Your task to perform on an android device: turn on airplane mode Image 0: 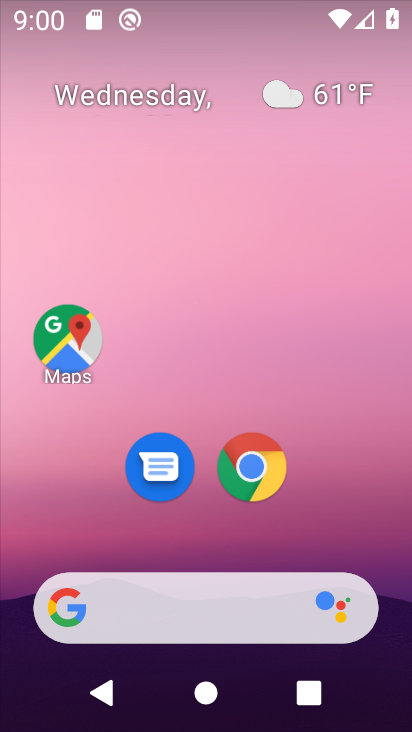
Step 0: drag from (368, 514) to (293, 118)
Your task to perform on an android device: turn on airplane mode Image 1: 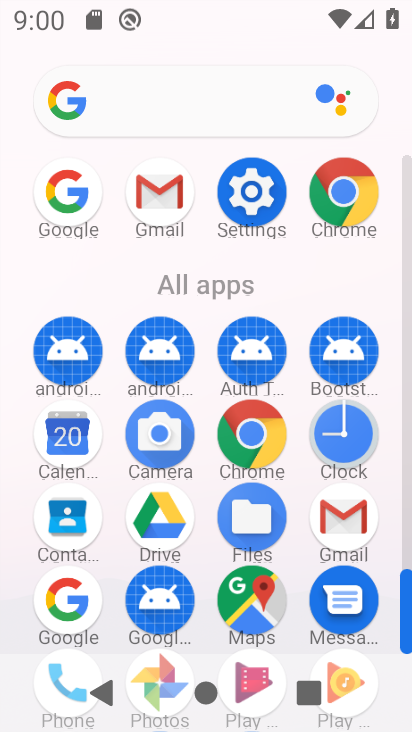
Step 1: click (252, 193)
Your task to perform on an android device: turn on airplane mode Image 2: 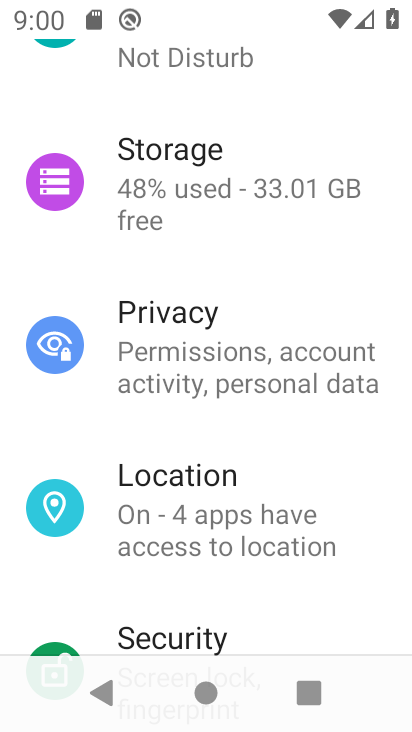
Step 2: drag from (297, 158) to (356, 482)
Your task to perform on an android device: turn on airplane mode Image 3: 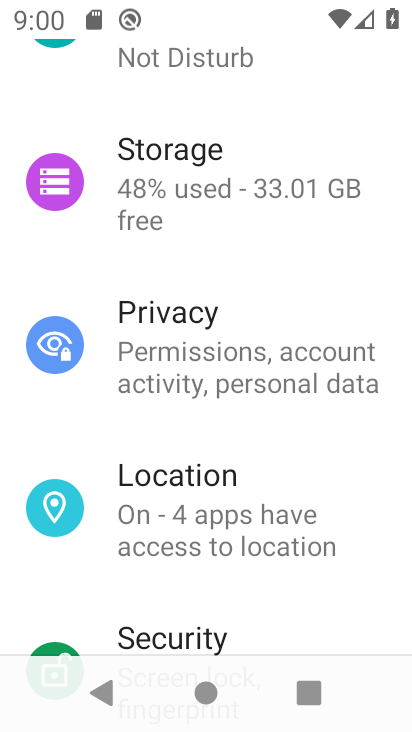
Step 3: drag from (278, 218) to (284, 577)
Your task to perform on an android device: turn on airplane mode Image 4: 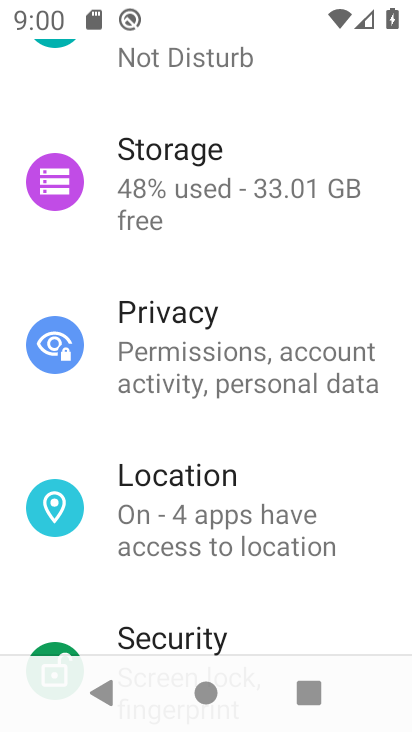
Step 4: drag from (307, 207) to (291, 509)
Your task to perform on an android device: turn on airplane mode Image 5: 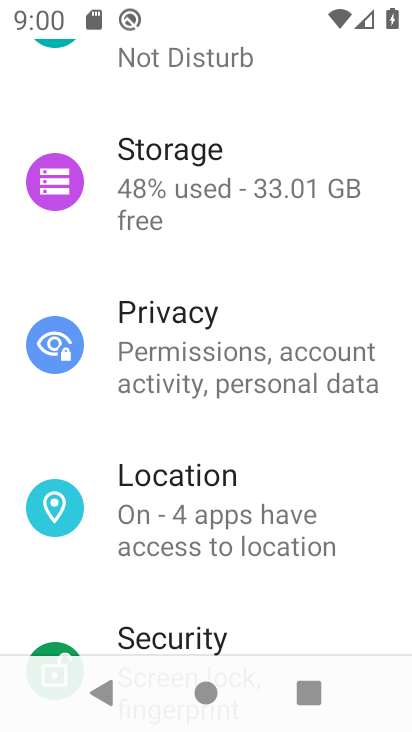
Step 5: drag from (254, 203) to (248, 541)
Your task to perform on an android device: turn on airplane mode Image 6: 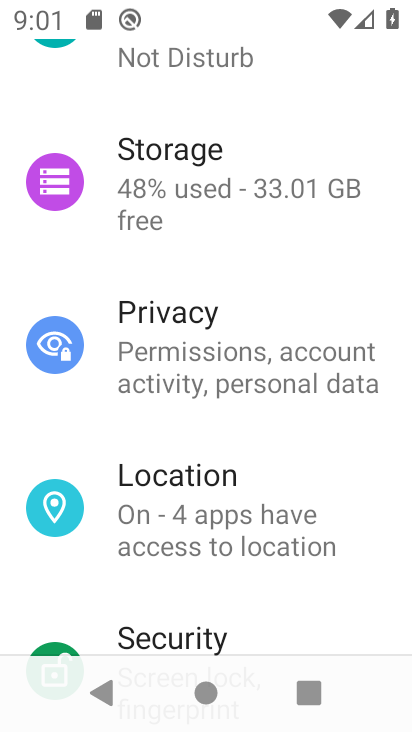
Step 6: drag from (244, 211) to (255, 523)
Your task to perform on an android device: turn on airplane mode Image 7: 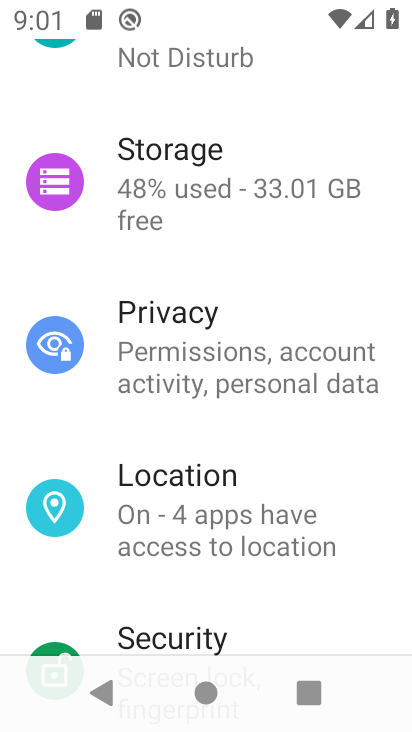
Step 7: drag from (248, 196) to (266, 642)
Your task to perform on an android device: turn on airplane mode Image 8: 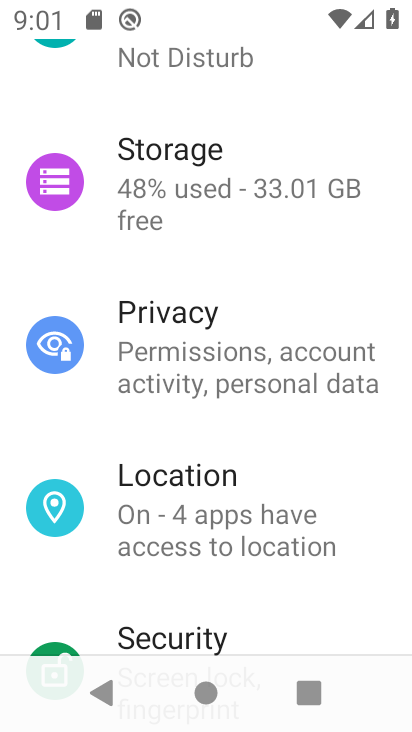
Step 8: drag from (257, 254) to (254, 599)
Your task to perform on an android device: turn on airplane mode Image 9: 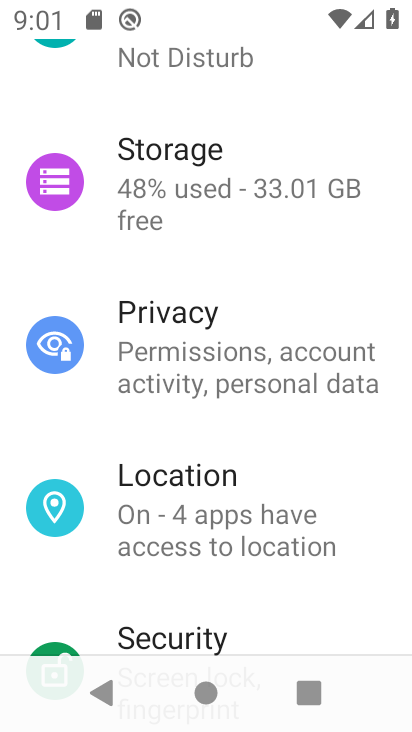
Step 9: drag from (262, 260) to (213, 544)
Your task to perform on an android device: turn on airplane mode Image 10: 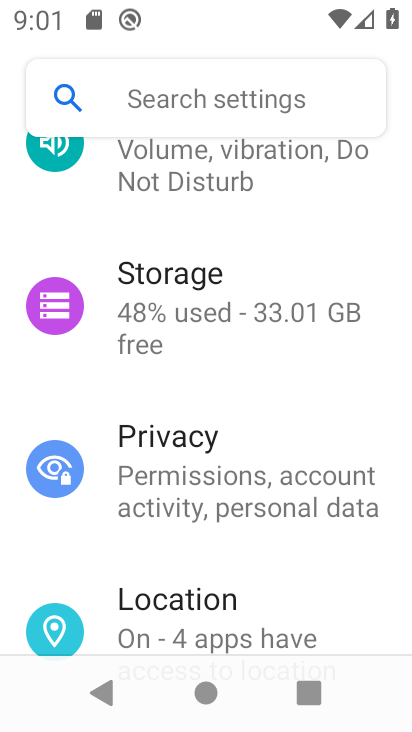
Step 10: drag from (251, 263) to (249, 584)
Your task to perform on an android device: turn on airplane mode Image 11: 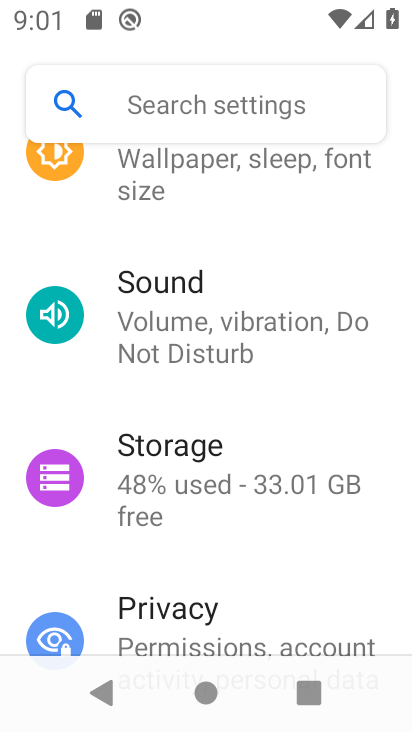
Step 11: drag from (262, 264) to (240, 622)
Your task to perform on an android device: turn on airplane mode Image 12: 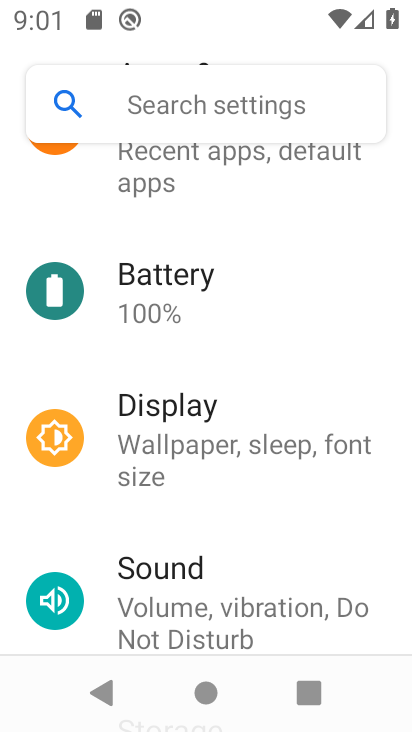
Step 12: drag from (249, 352) to (221, 613)
Your task to perform on an android device: turn on airplane mode Image 13: 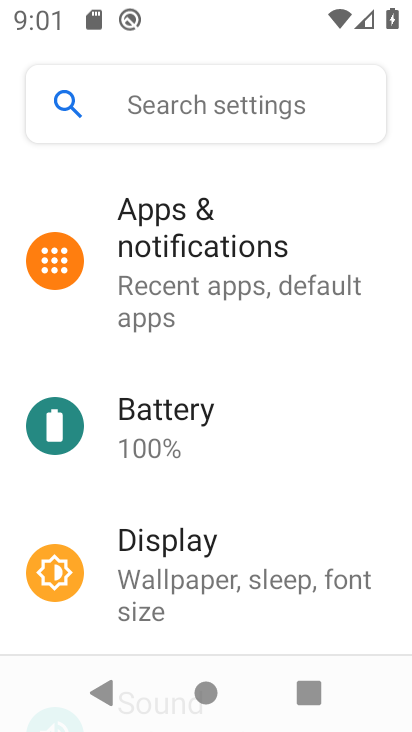
Step 13: drag from (256, 286) to (218, 621)
Your task to perform on an android device: turn on airplane mode Image 14: 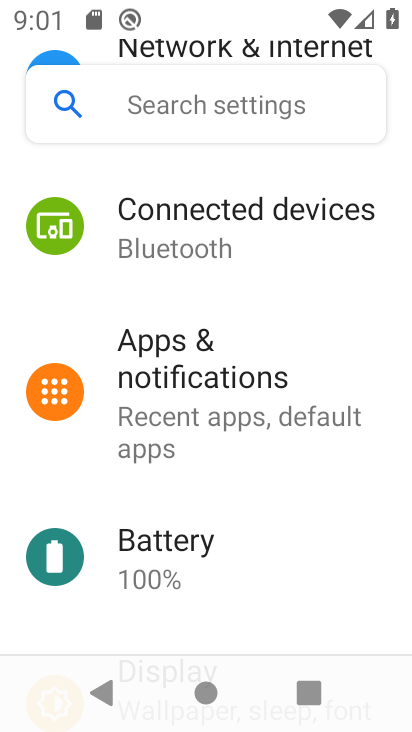
Step 14: drag from (285, 357) to (246, 626)
Your task to perform on an android device: turn on airplane mode Image 15: 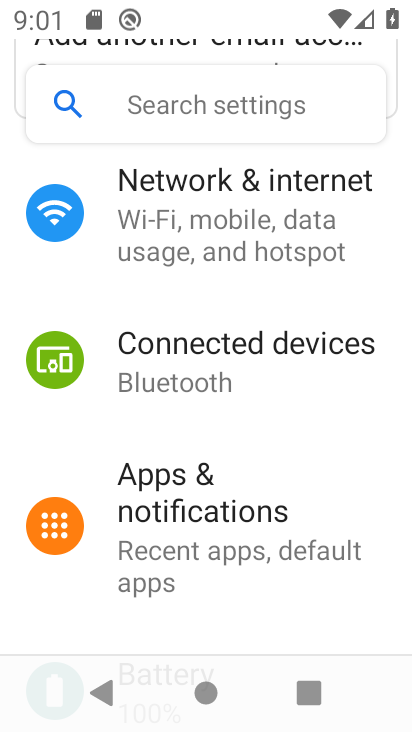
Step 15: drag from (232, 235) to (182, 611)
Your task to perform on an android device: turn on airplane mode Image 16: 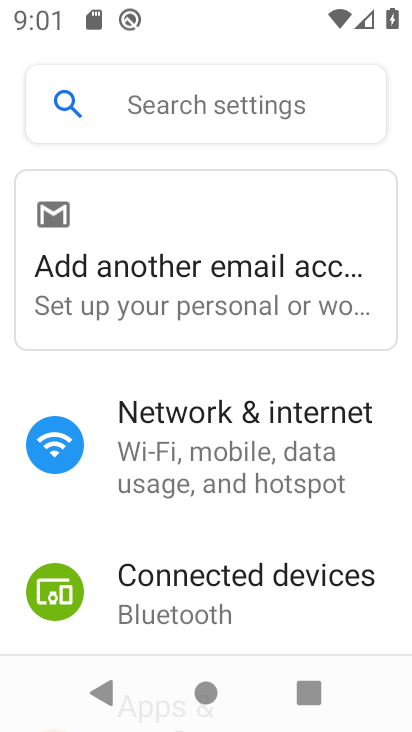
Step 16: click (189, 418)
Your task to perform on an android device: turn on airplane mode Image 17: 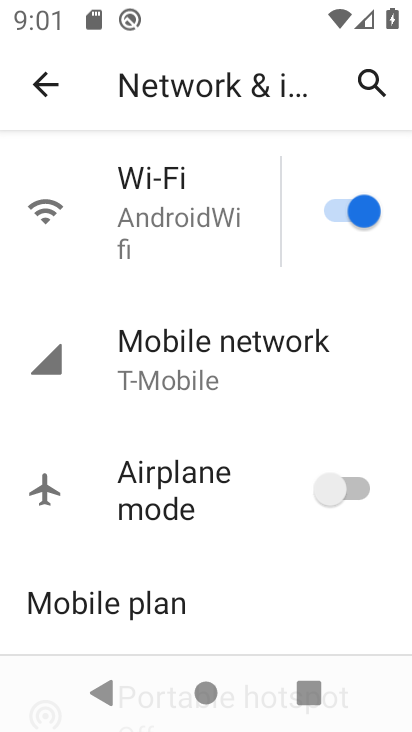
Step 17: click (344, 500)
Your task to perform on an android device: turn on airplane mode Image 18: 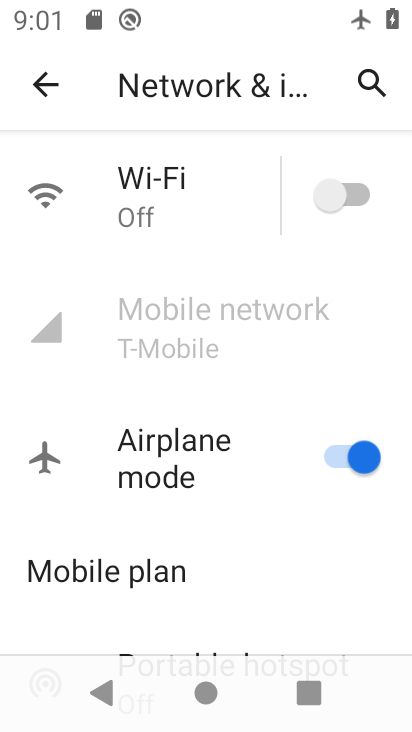
Step 18: task complete